Your task to perform on an android device: open app "Cash App" (install if not already installed) and go to login screen Image 0: 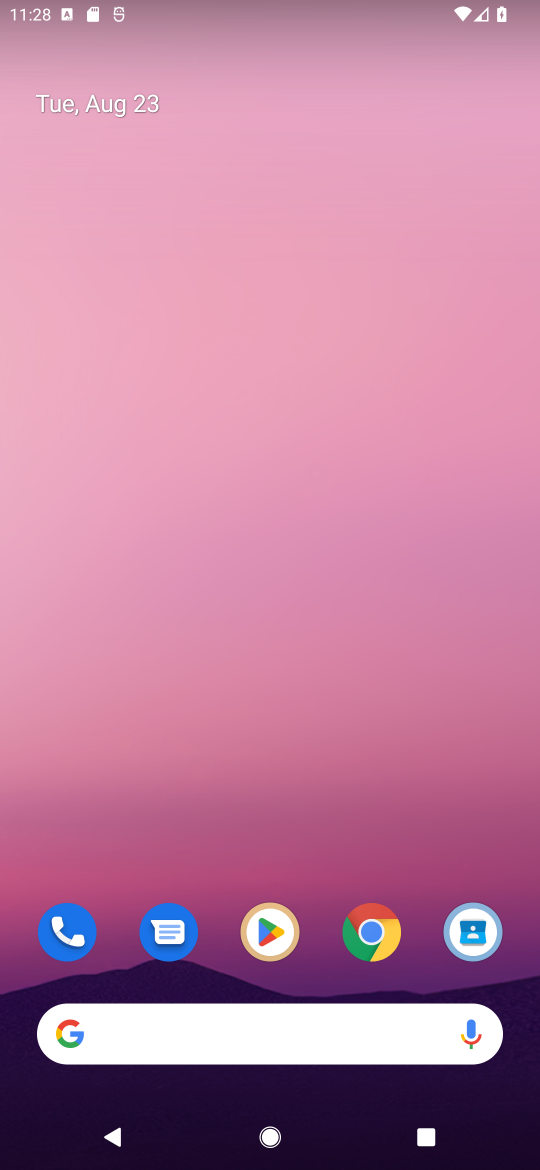
Step 0: click (272, 944)
Your task to perform on an android device: open app "Cash App" (install if not already installed) and go to login screen Image 1: 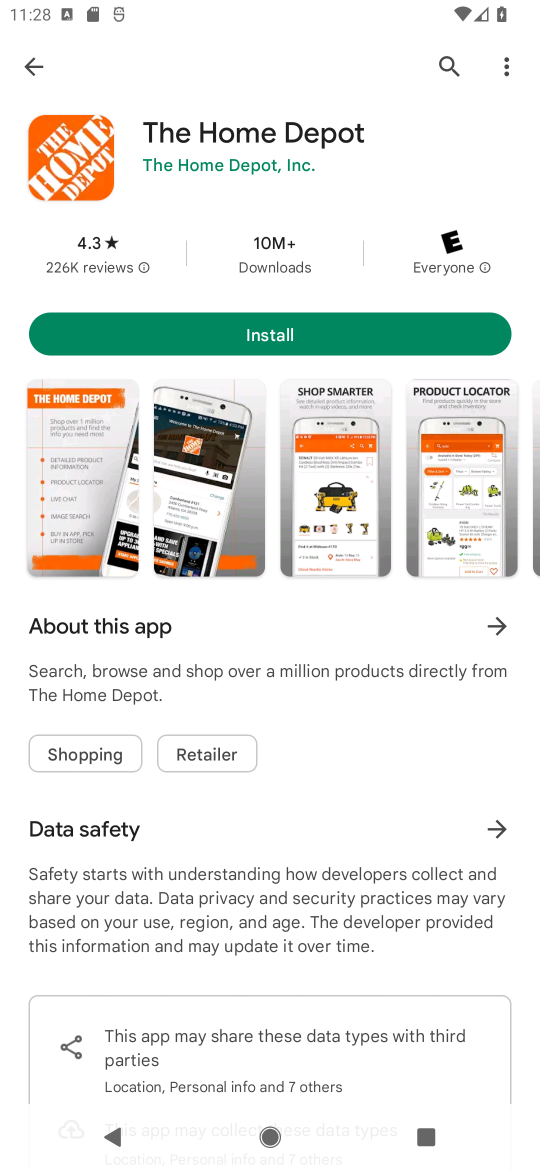
Step 1: click (427, 74)
Your task to perform on an android device: open app "Cash App" (install if not already installed) and go to login screen Image 2: 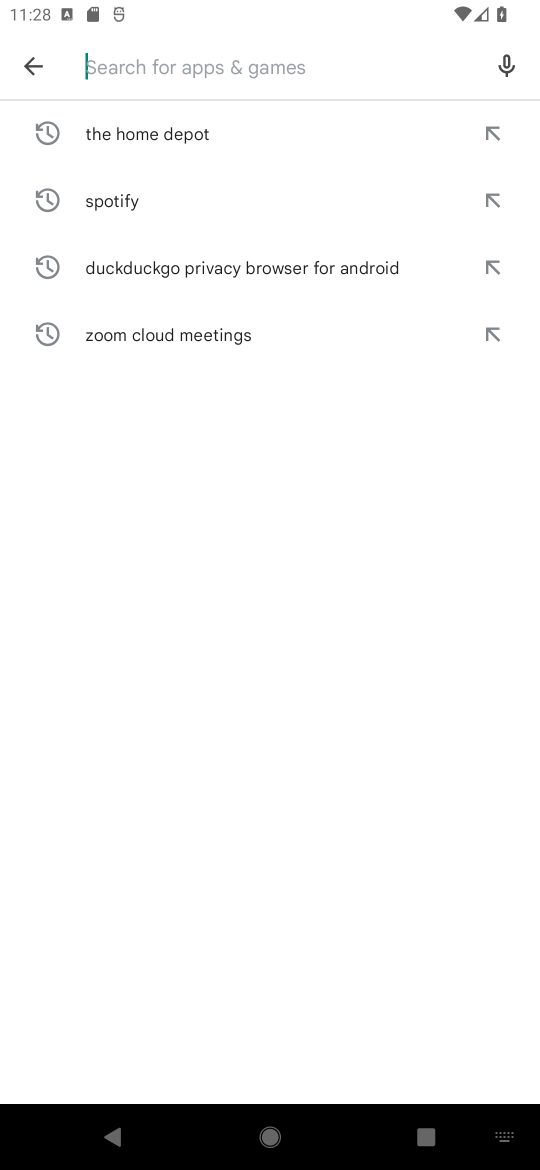
Step 2: click (123, 57)
Your task to perform on an android device: open app "Cash App" (install if not already installed) and go to login screen Image 3: 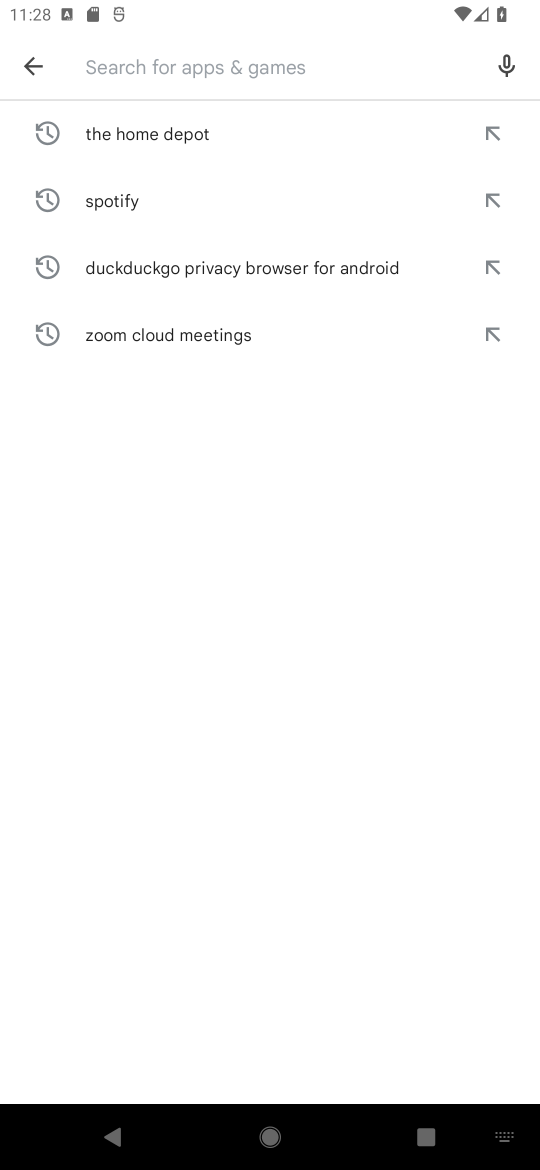
Step 3: type "Cash App"
Your task to perform on an android device: open app "Cash App" (install if not already installed) and go to login screen Image 4: 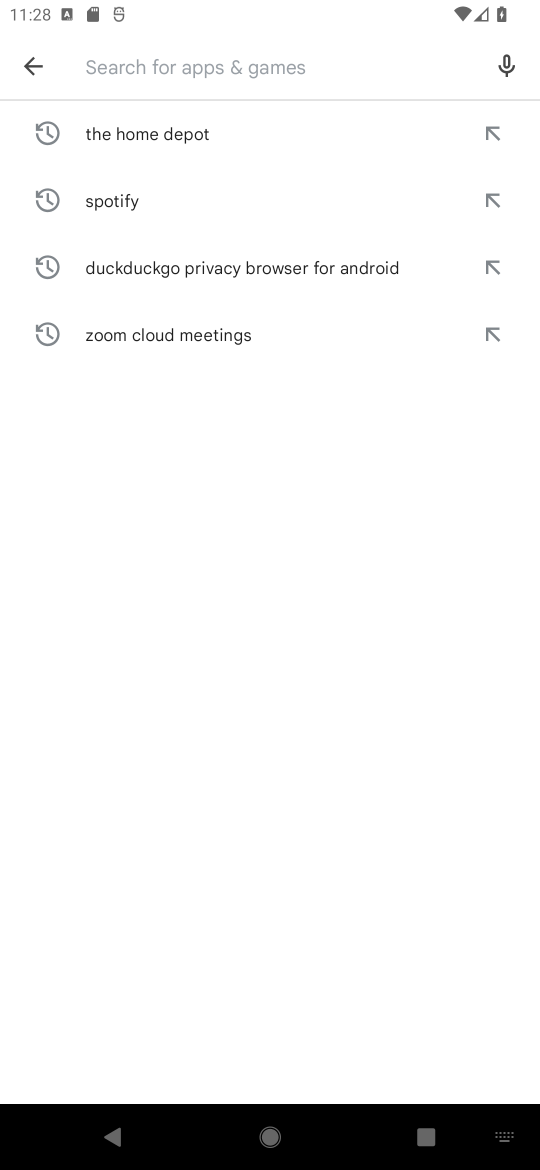
Step 4: click (290, 612)
Your task to perform on an android device: open app "Cash App" (install if not already installed) and go to login screen Image 5: 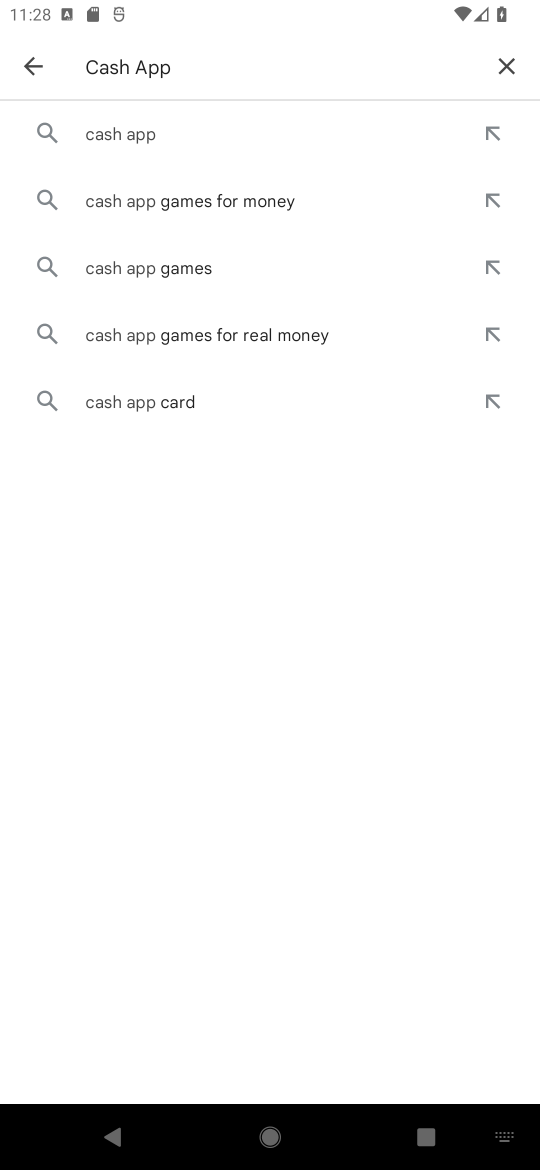
Step 5: click (110, 125)
Your task to perform on an android device: open app "Cash App" (install if not already installed) and go to login screen Image 6: 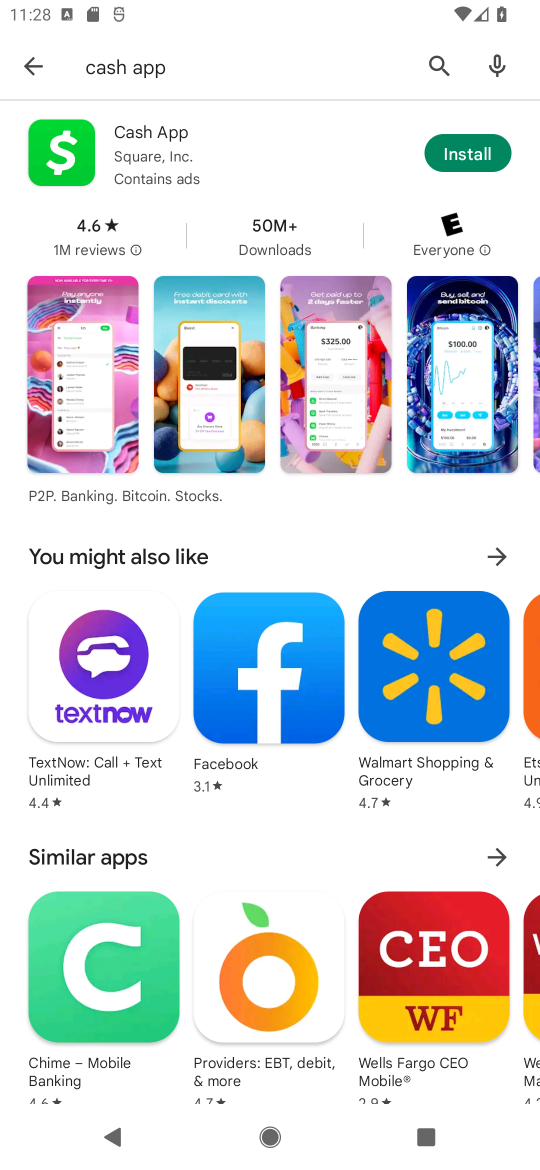
Step 6: click (480, 158)
Your task to perform on an android device: open app "Cash App" (install if not already installed) and go to login screen Image 7: 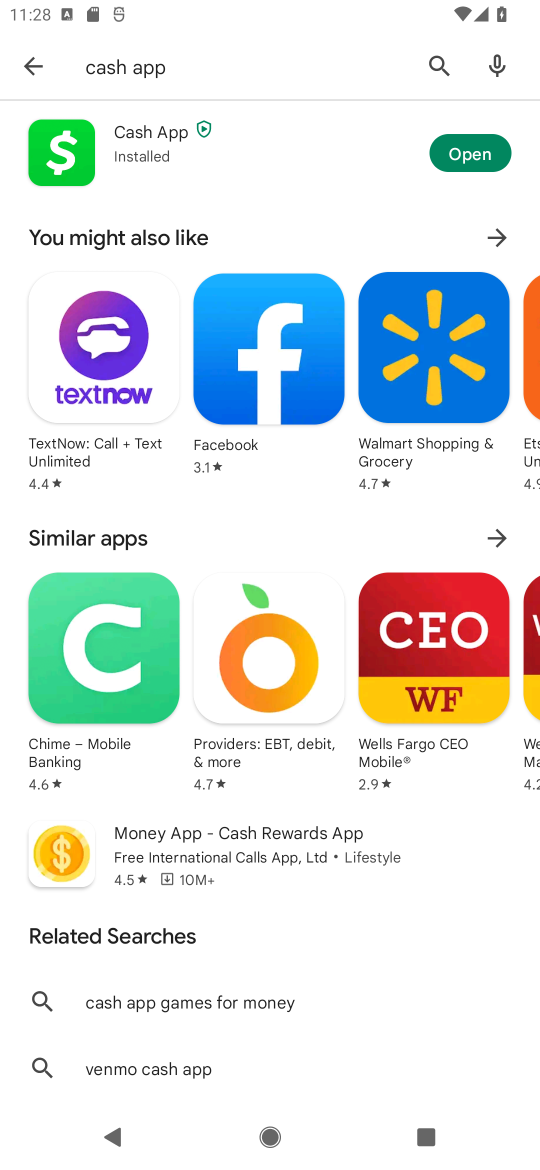
Step 7: click (462, 151)
Your task to perform on an android device: open app "Cash App" (install if not already installed) and go to login screen Image 8: 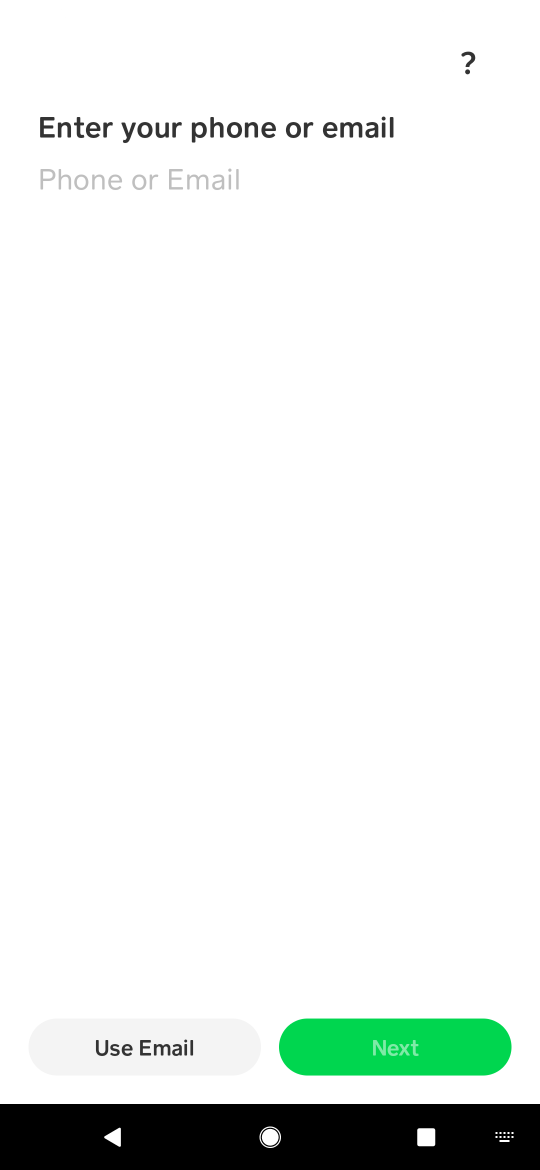
Step 8: task complete